Your task to perform on an android device: manage bookmarks in the chrome app Image 0: 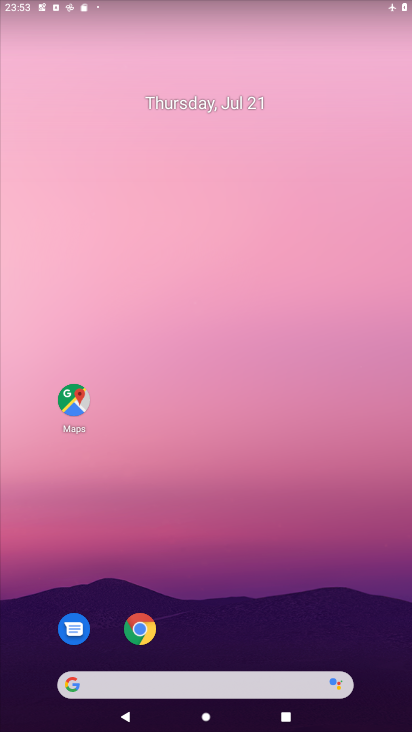
Step 0: drag from (268, 596) to (248, 202)
Your task to perform on an android device: manage bookmarks in the chrome app Image 1: 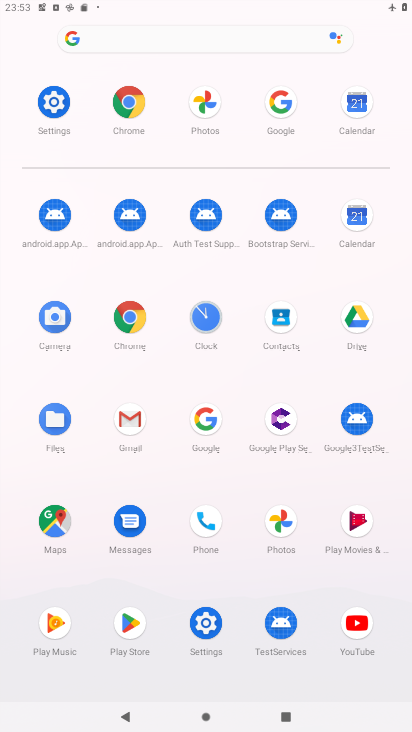
Step 1: click (130, 334)
Your task to perform on an android device: manage bookmarks in the chrome app Image 2: 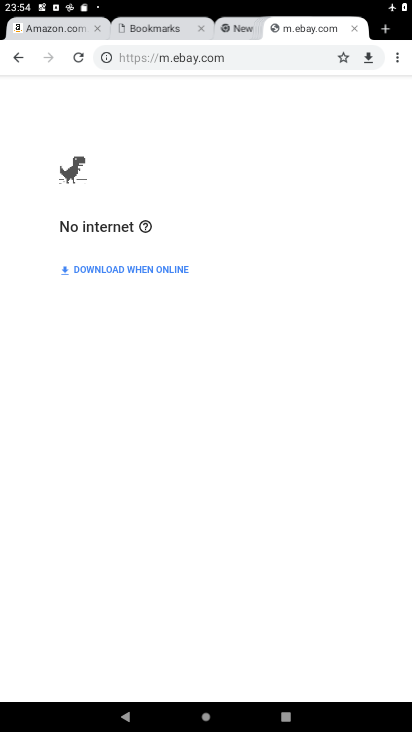
Step 2: click (392, 62)
Your task to perform on an android device: manage bookmarks in the chrome app Image 3: 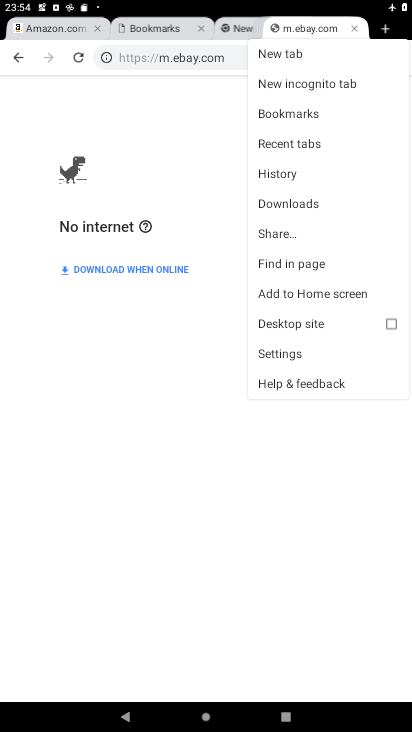
Step 3: click (314, 119)
Your task to perform on an android device: manage bookmarks in the chrome app Image 4: 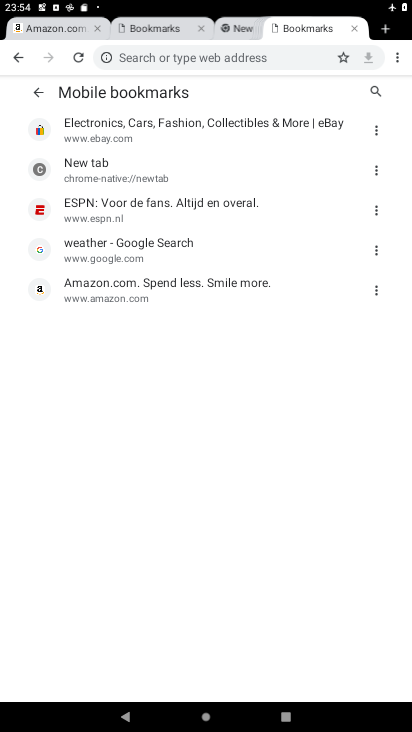
Step 4: click (376, 293)
Your task to perform on an android device: manage bookmarks in the chrome app Image 5: 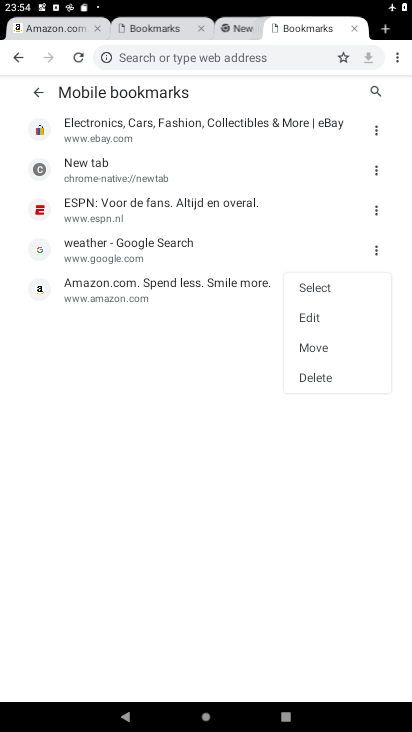
Step 5: click (329, 381)
Your task to perform on an android device: manage bookmarks in the chrome app Image 6: 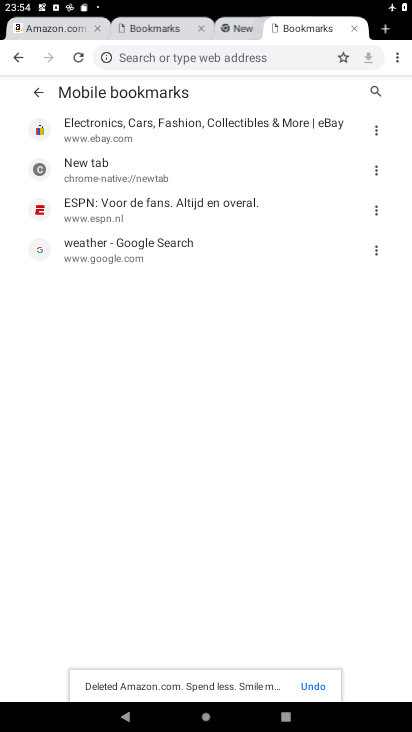
Step 6: task complete